Your task to perform on an android device: Go to Google maps Image 0: 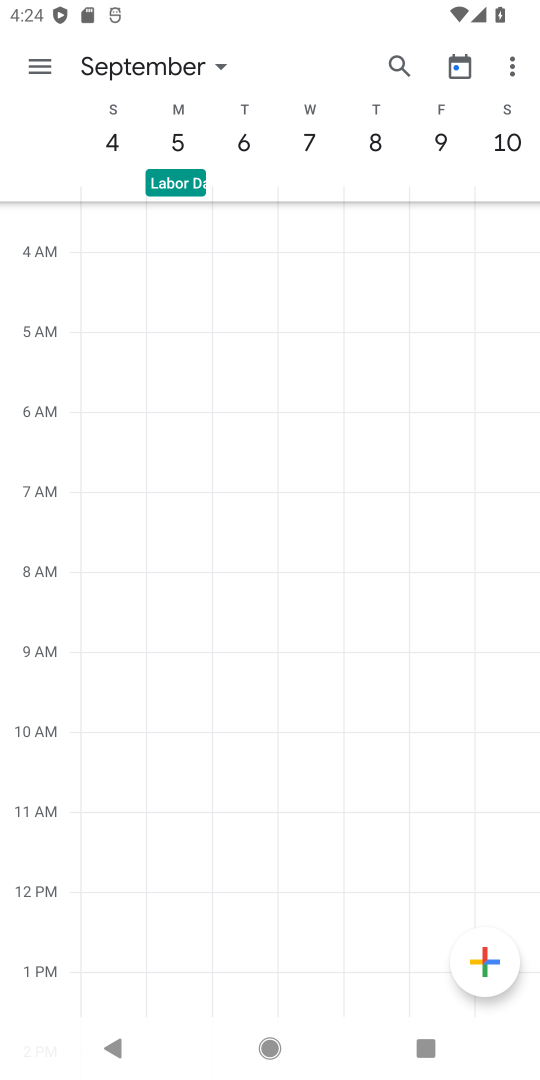
Step 0: press home button
Your task to perform on an android device: Go to Google maps Image 1: 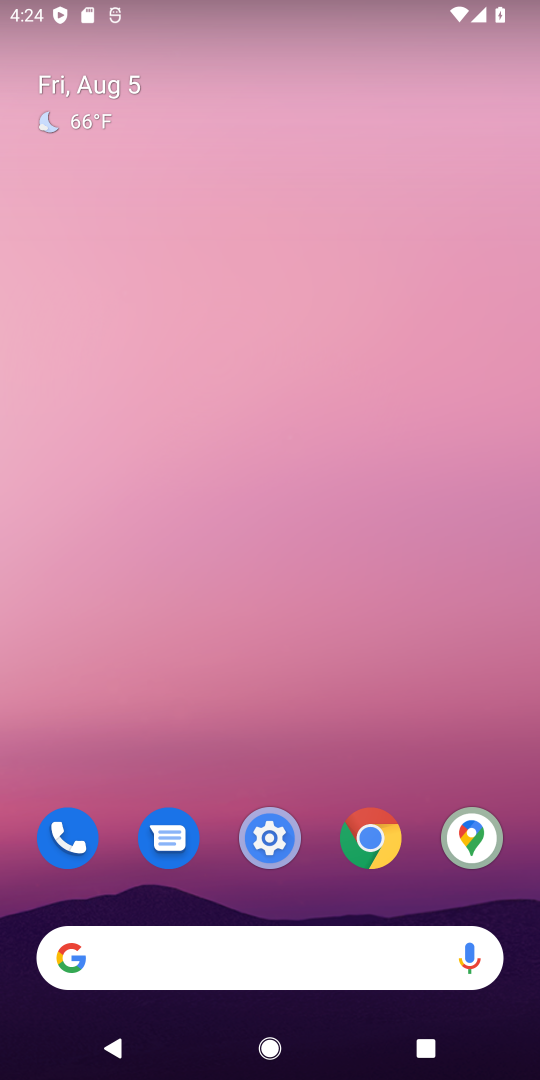
Step 1: drag from (224, 737) to (241, 288)
Your task to perform on an android device: Go to Google maps Image 2: 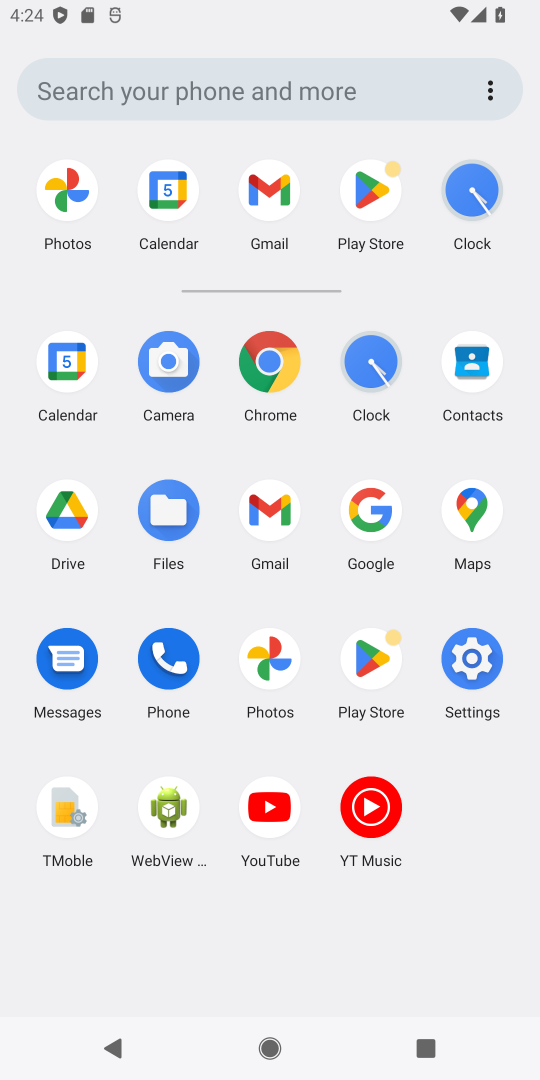
Step 2: click (476, 499)
Your task to perform on an android device: Go to Google maps Image 3: 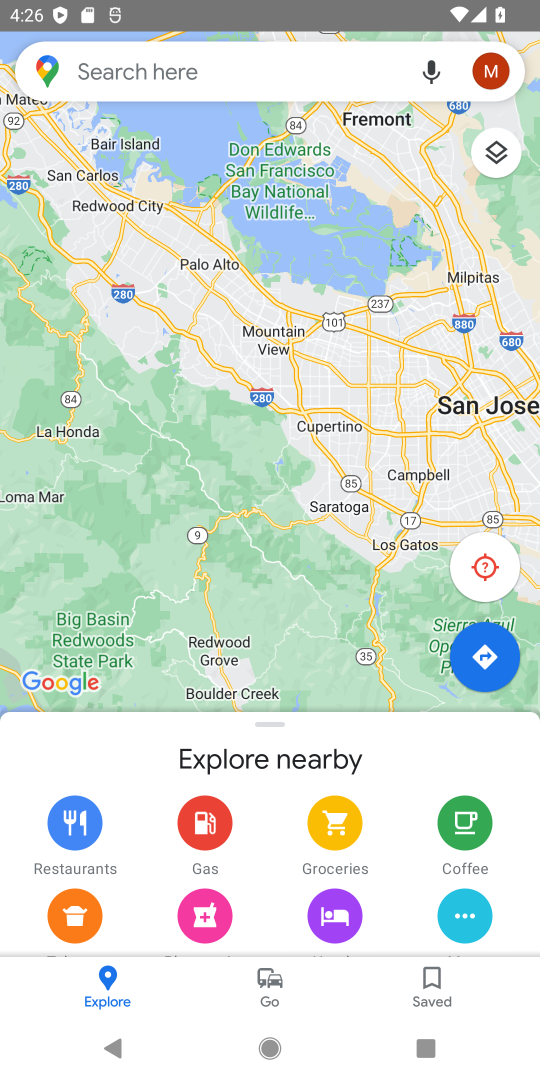
Step 3: task complete